Your task to perform on an android device: turn on the 12-hour format for clock Image 0: 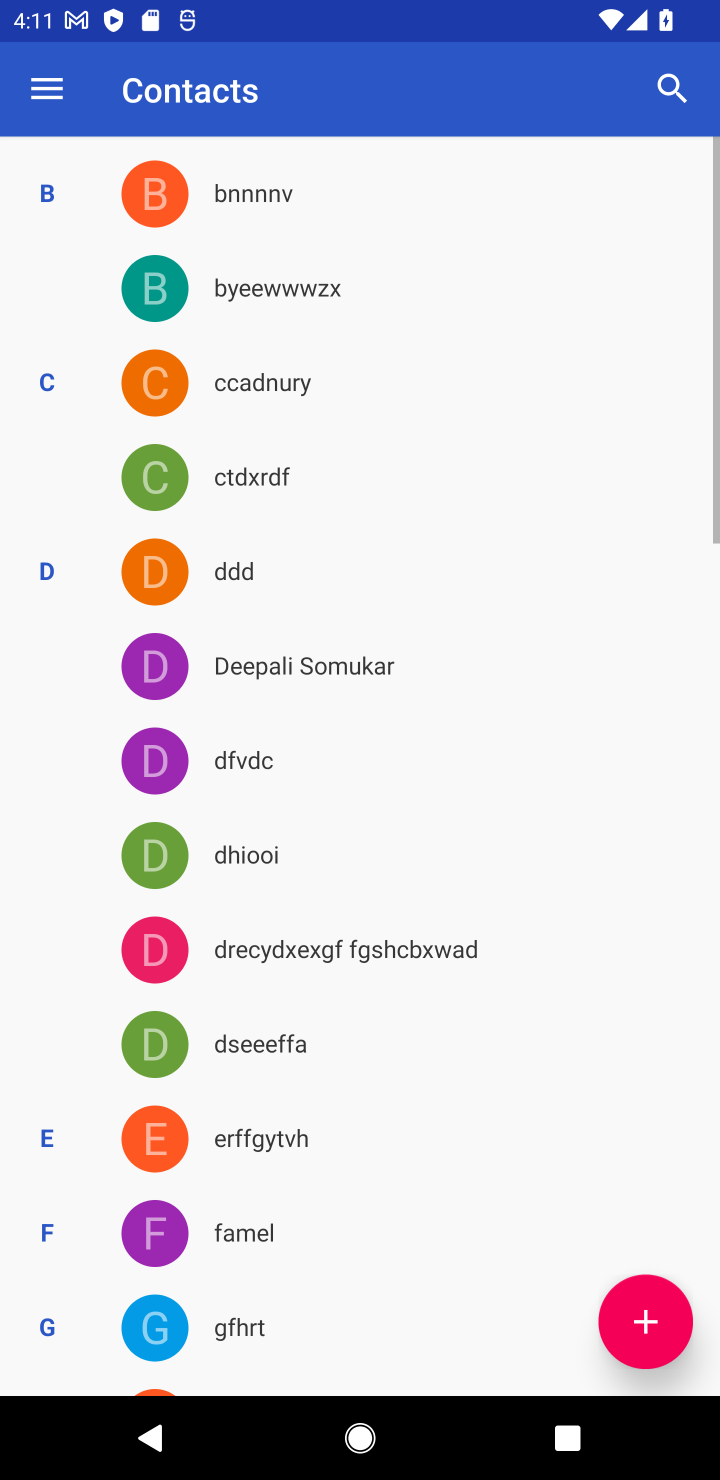
Step 0: press home button
Your task to perform on an android device: turn on the 12-hour format for clock Image 1: 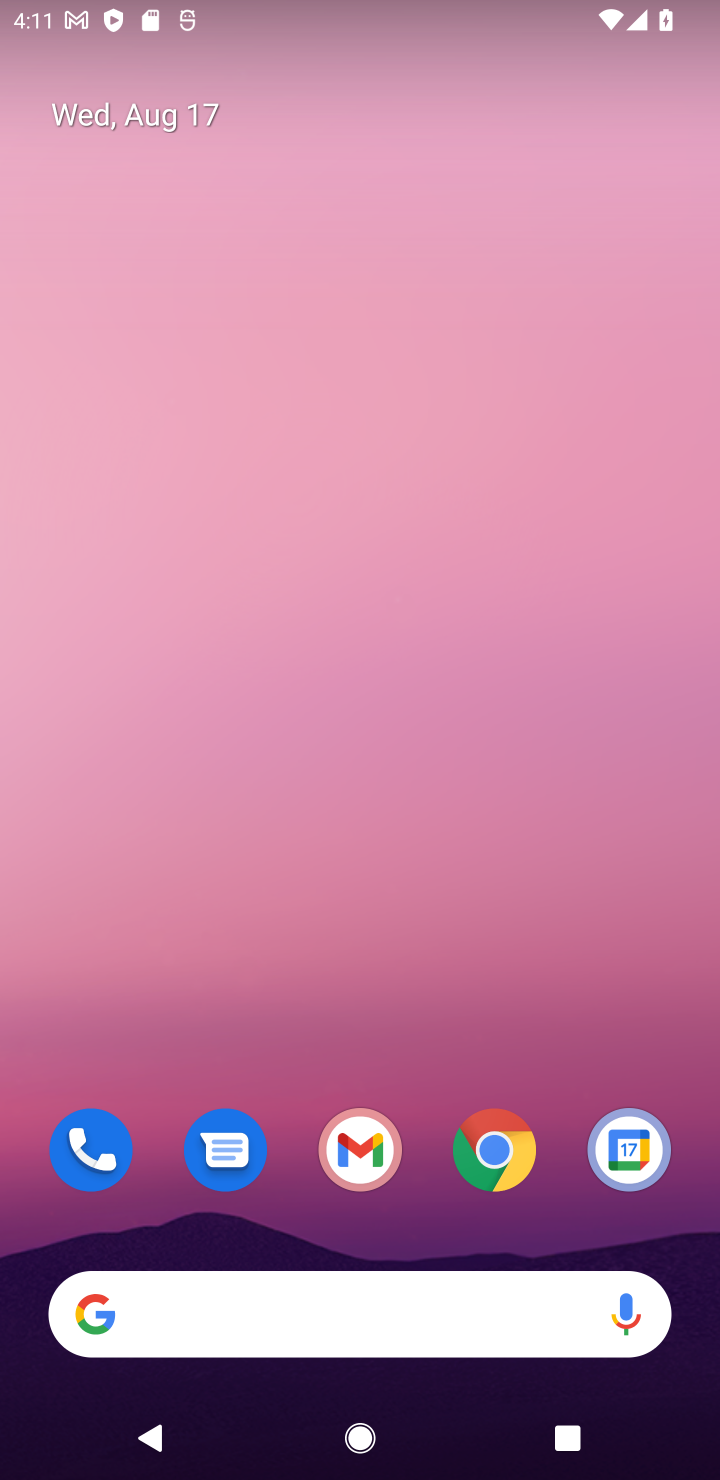
Step 1: drag from (674, 1269) to (419, 44)
Your task to perform on an android device: turn on the 12-hour format for clock Image 2: 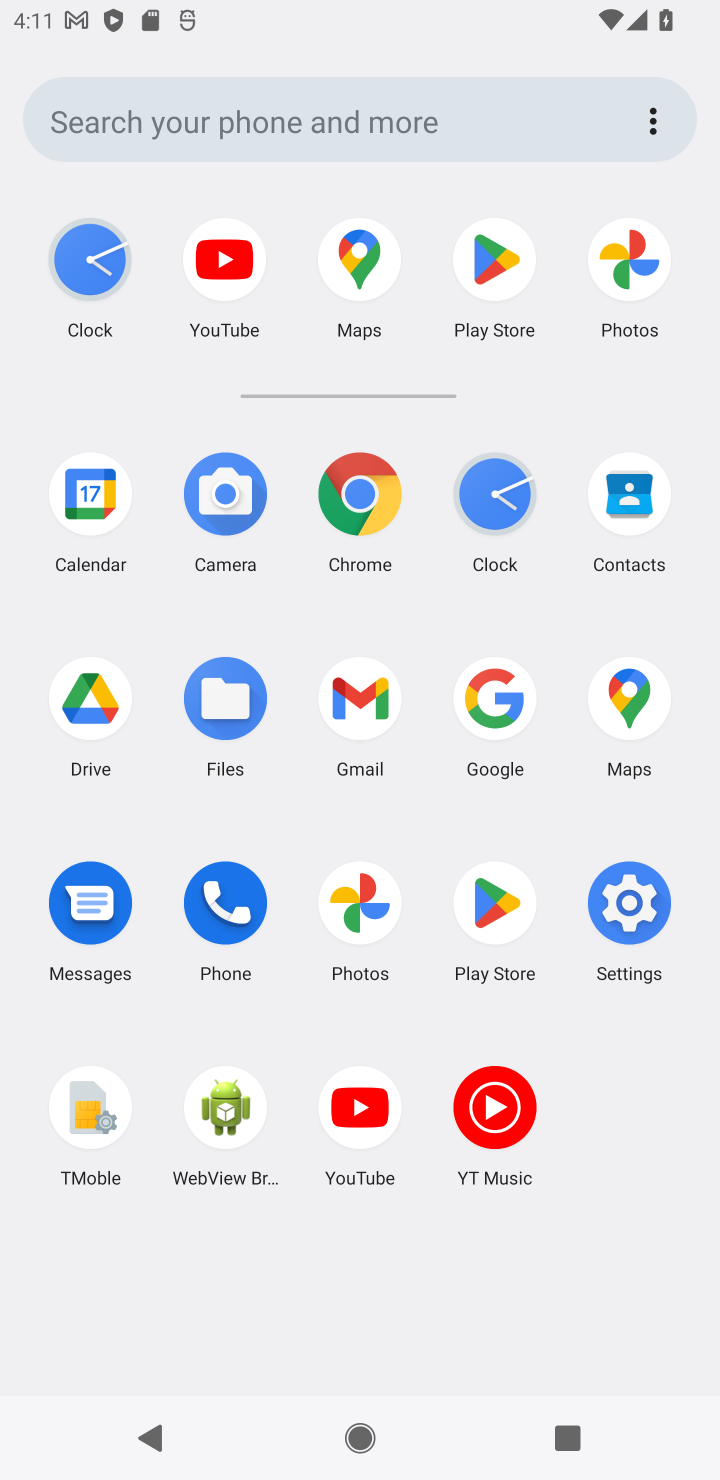
Step 2: click (470, 527)
Your task to perform on an android device: turn on the 12-hour format for clock Image 3: 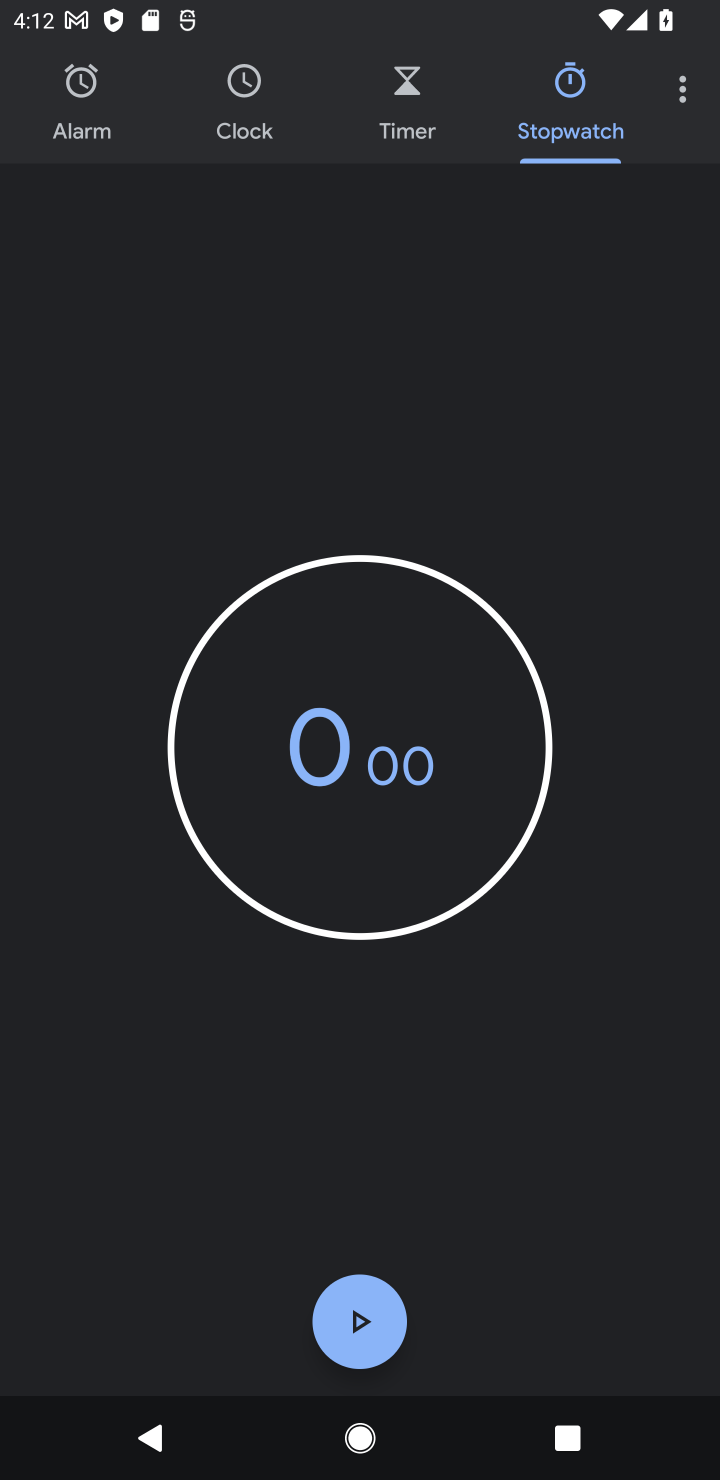
Step 3: click (682, 110)
Your task to perform on an android device: turn on the 12-hour format for clock Image 4: 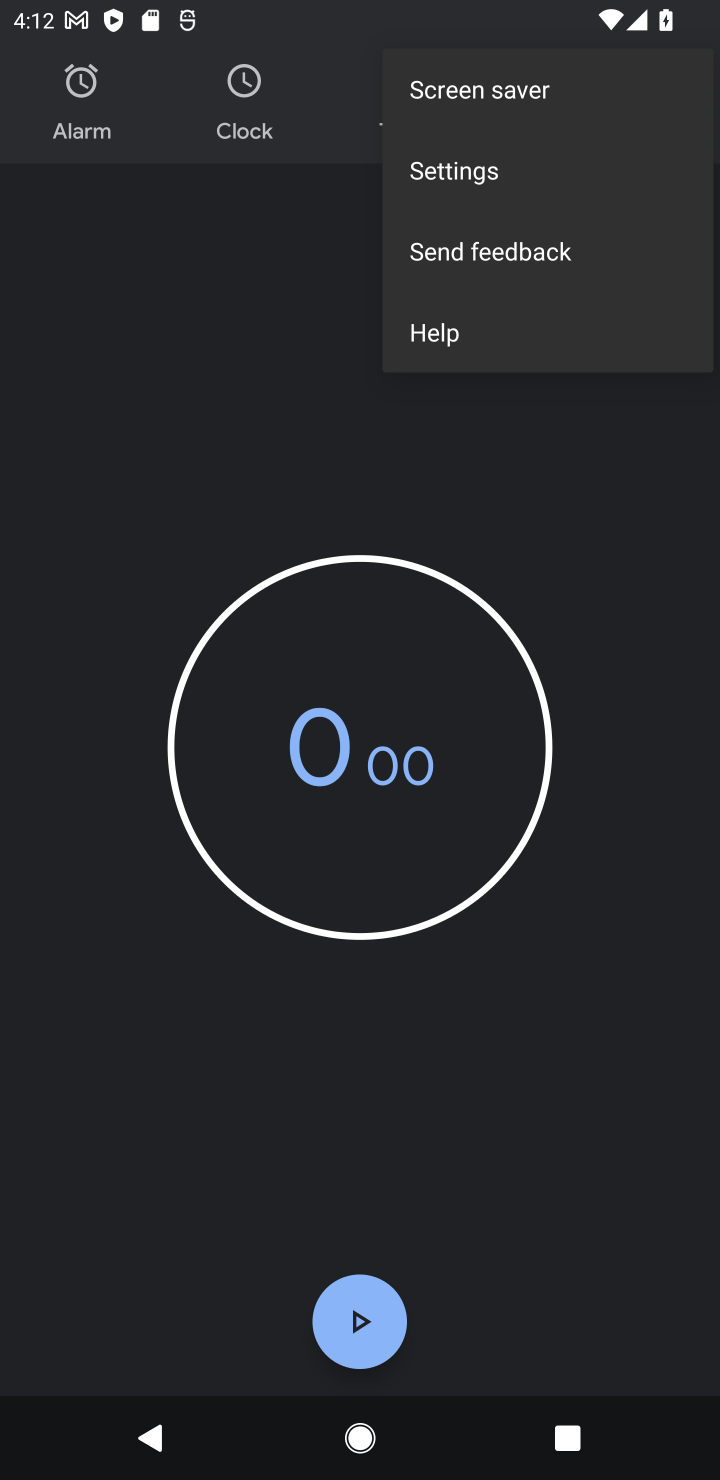
Step 4: click (463, 188)
Your task to perform on an android device: turn on the 12-hour format for clock Image 5: 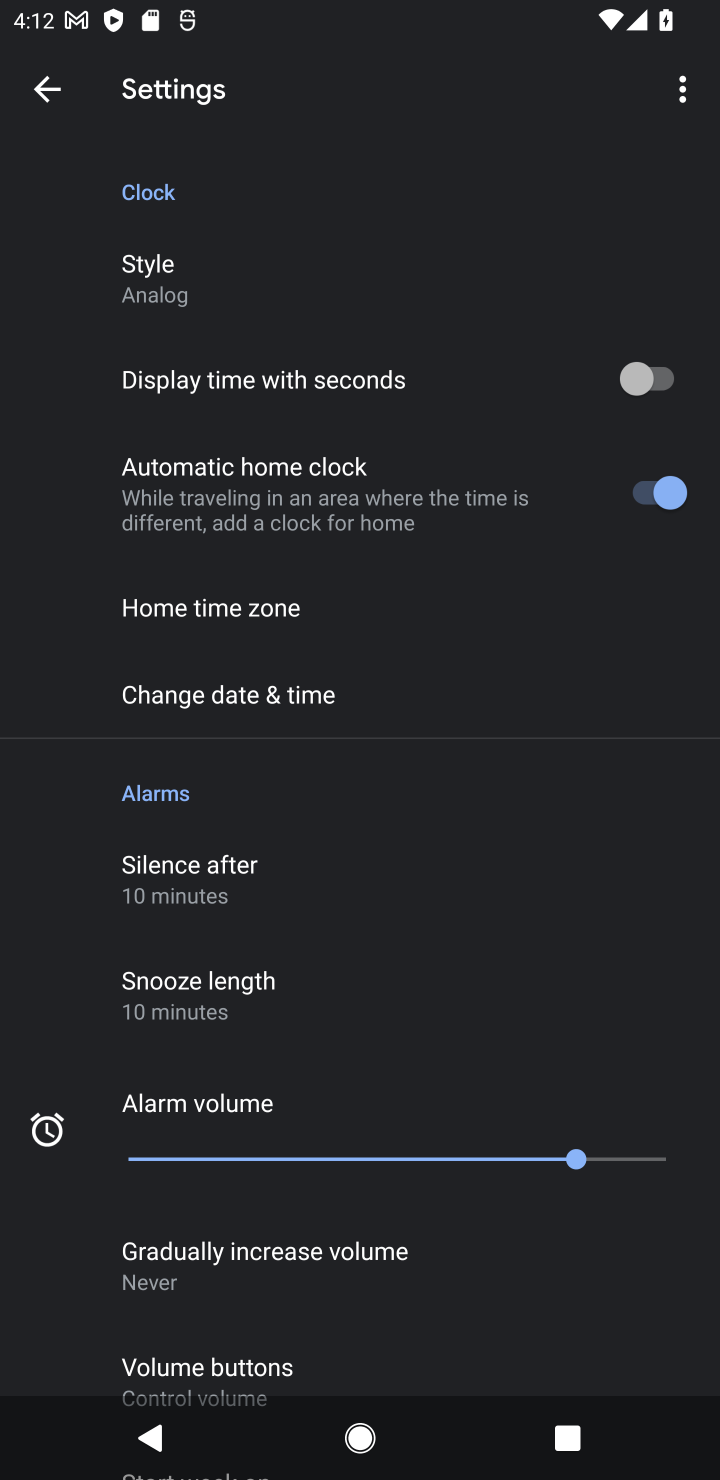
Step 5: click (210, 702)
Your task to perform on an android device: turn on the 12-hour format for clock Image 6: 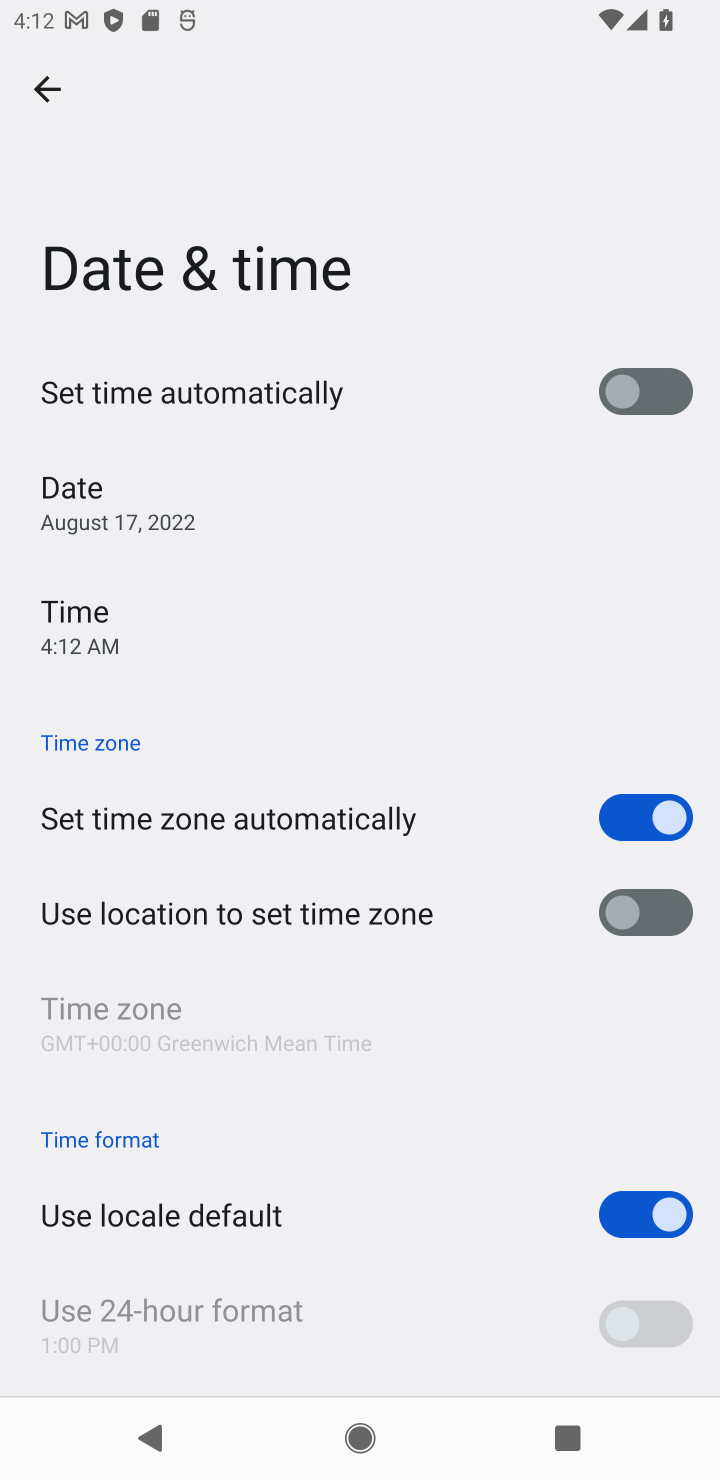
Step 6: task complete